Your task to perform on an android device: See recent photos Image 0: 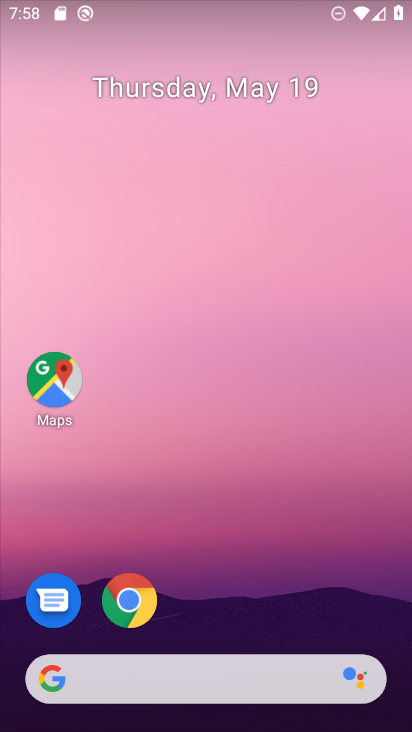
Step 0: drag from (379, 626) to (378, 263)
Your task to perform on an android device: See recent photos Image 1: 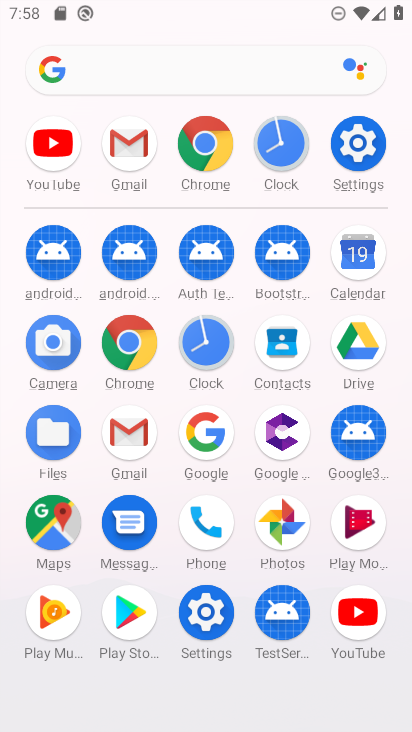
Step 1: click (281, 529)
Your task to perform on an android device: See recent photos Image 2: 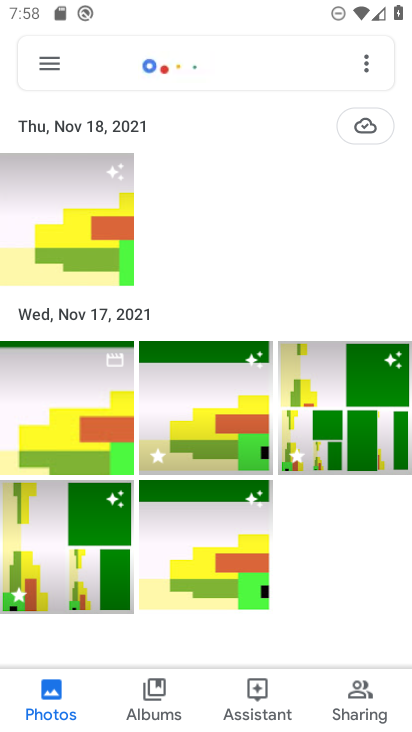
Step 2: click (81, 398)
Your task to perform on an android device: See recent photos Image 3: 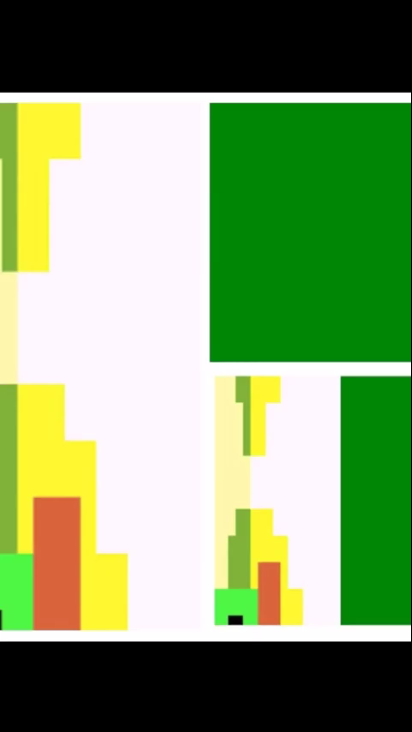
Step 3: task complete